Your task to perform on an android device: toggle notification dots Image 0: 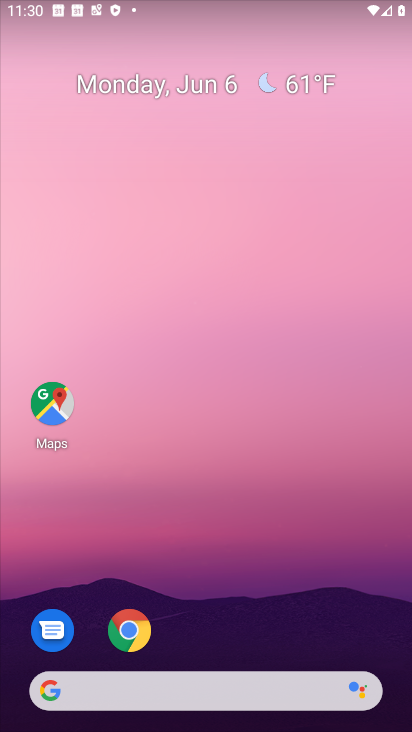
Step 0: press home button
Your task to perform on an android device: toggle notification dots Image 1: 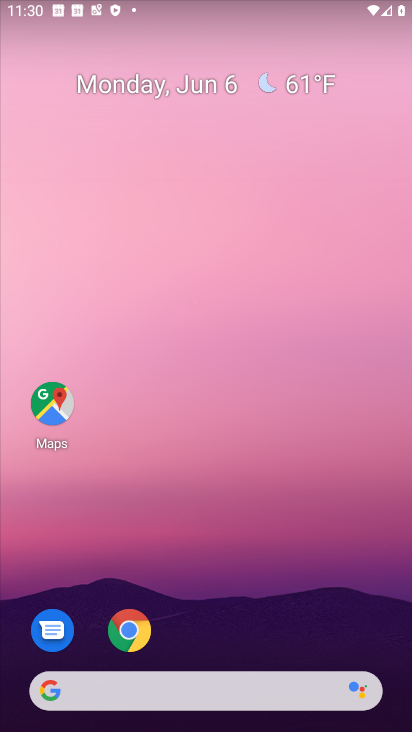
Step 1: drag from (365, 584) to (349, 168)
Your task to perform on an android device: toggle notification dots Image 2: 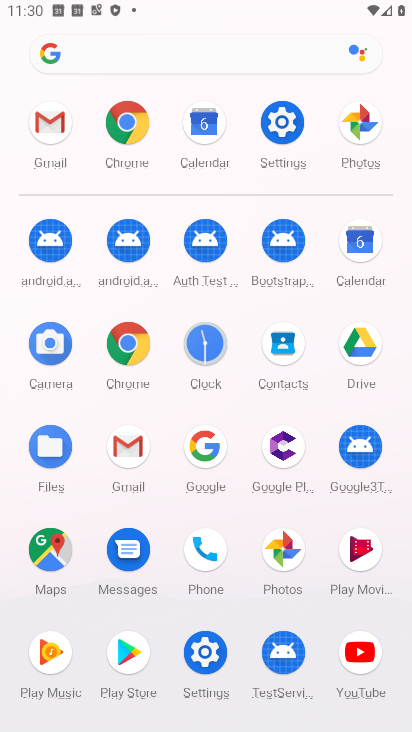
Step 2: click (300, 138)
Your task to perform on an android device: toggle notification dots Image 3: 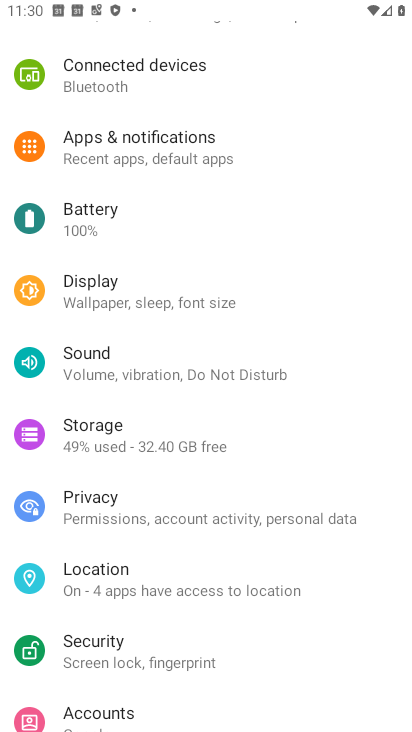
Step 3: click (196, 160)
Your task to perform on an android device: toggle notification dots Image 4: 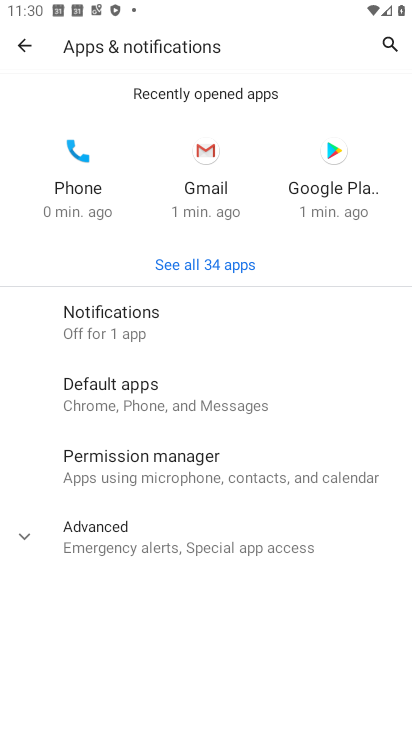
Step 4: click (264, 555)
Your task to perform on an android device: toggle notification dots Image 5: 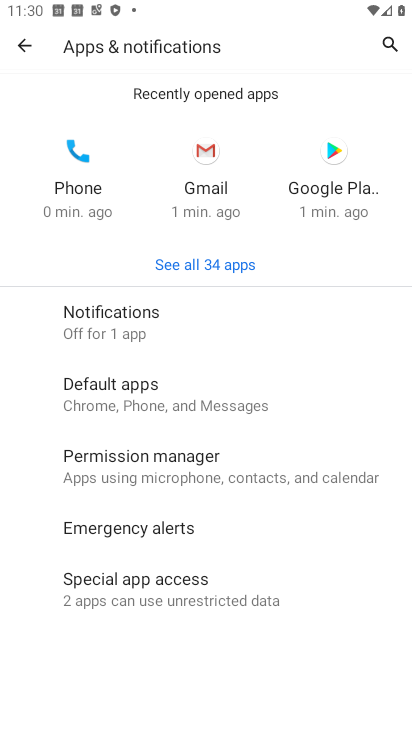
Step 5: click (285, 600)
Your task to perform on an android device: toggle notification dots Image 6: 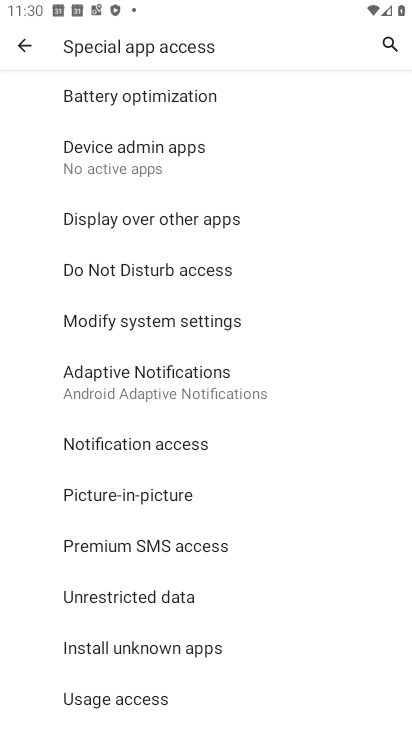
Step 6: drag from (167, 191) to (197, 622)
Your task to perform on an android device: toggle notification dots Image 7: 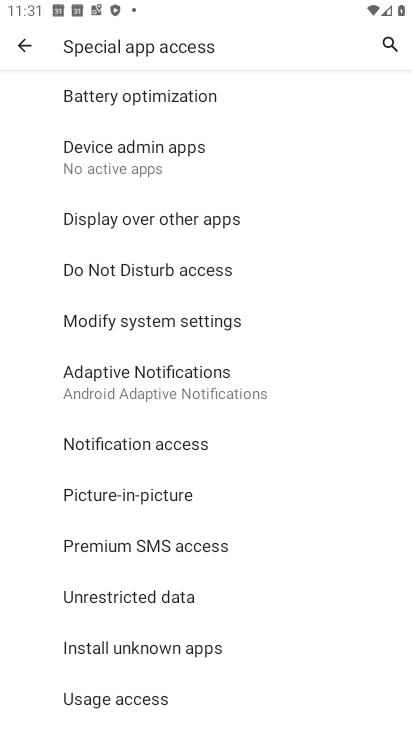
Step 7: drag from (104, 116) to (63, 462)
Your task to perform on an android device: toggle notification dots Image 8: 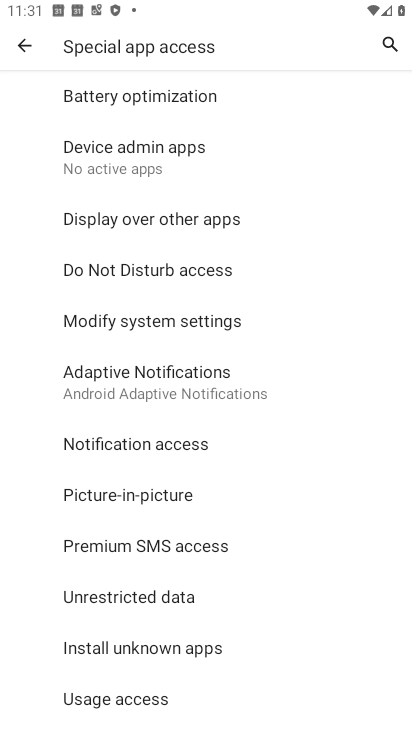
Step 8: click (30, 47)
Your task to perform on an android device: toggle notification dots Image 9: 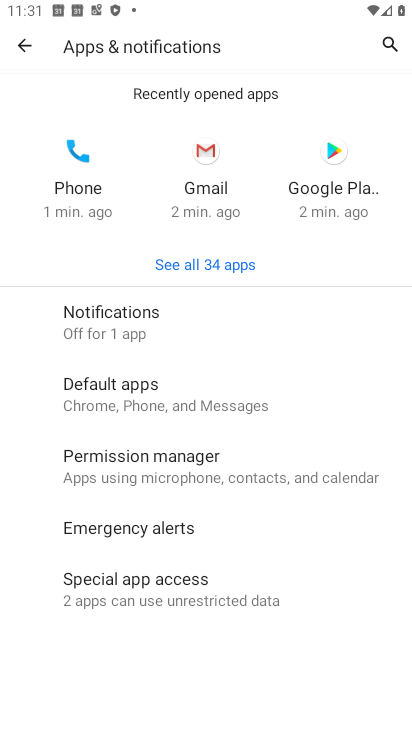
Step 9: click (92, 334)
Your task to perform on an android device: toggle notification dots Image 10: 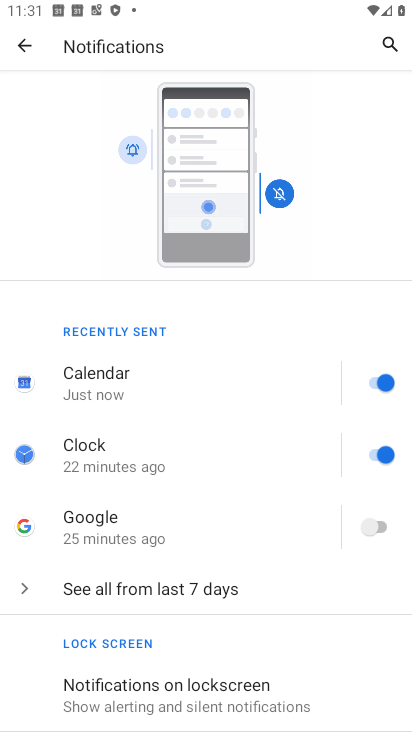
Step 10: drag from (292, 668) to (328, 367)
Your task to perform on an android device: toggle notification dots Image 11: 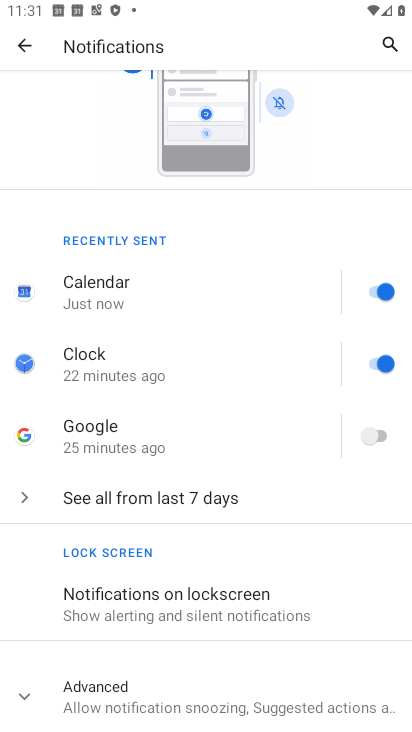
Step 11: click (264, 682)
Your task to perform on an android device: toggle notification dots Image 12: 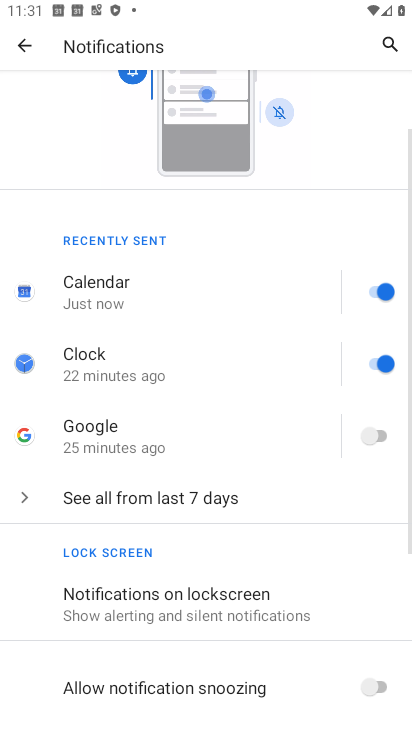
Step 12: drag from (290, 688) to (267, 333)
Your task to perform on an android device: toggle notification dots Image 13: 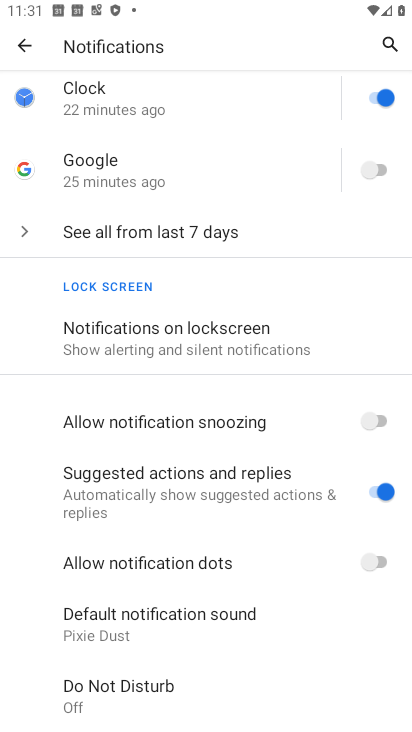
Step 13: click (384, 559)
Your task to perform on an android device: toggle notification dots Image 14: 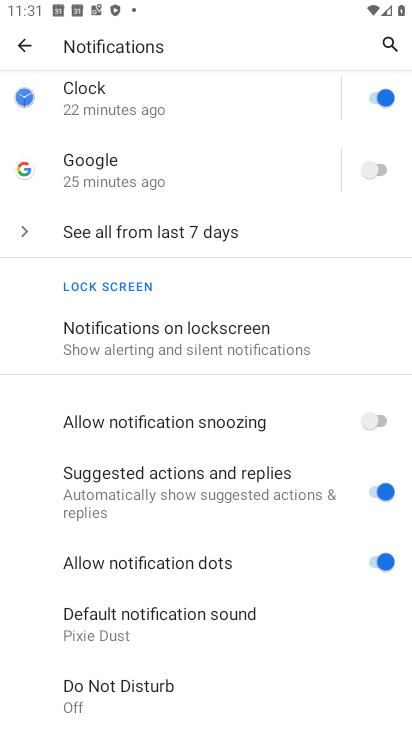
Step 14: task complete